Your task to perform on an android device: Open Chrome and go to settings Image 0: 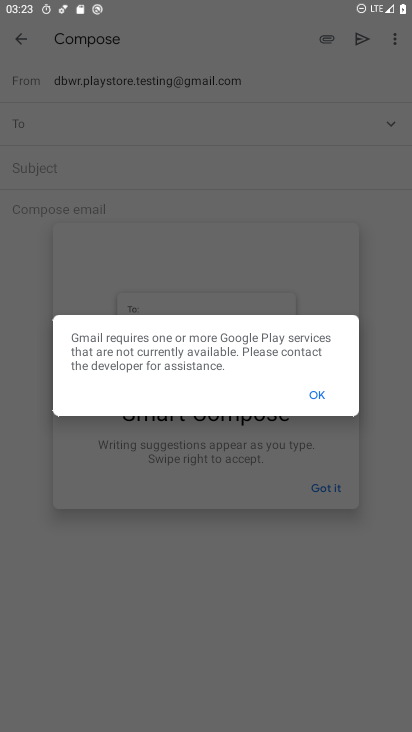
Step 0: press home button
Your task to perform on an android device: Open Chrome and go to settings Image 1: 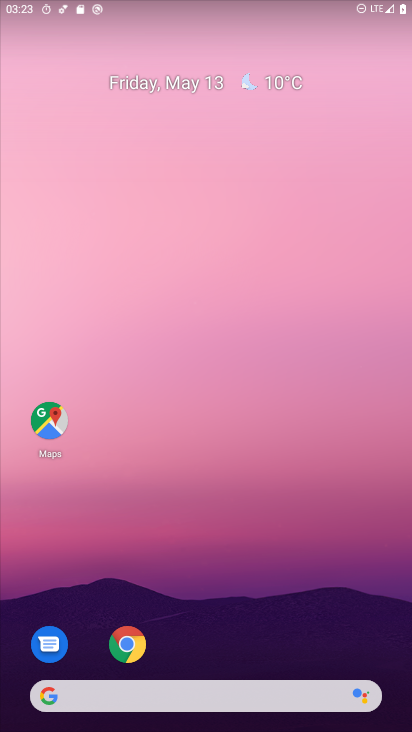
Step 1: drag from (250, 650) to (305, 46)
Your task to perform on an android device: Open Chrome and go to settings Image 2: 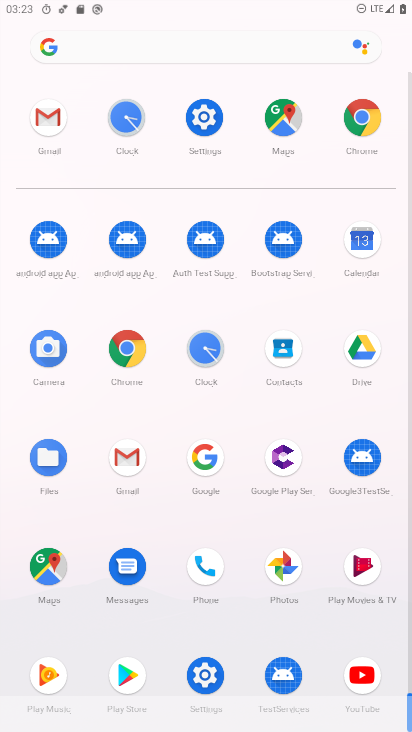
Step 2: click (141, 347)
Your task to perform on an android device: Open Chrome and go to settings Image 3: 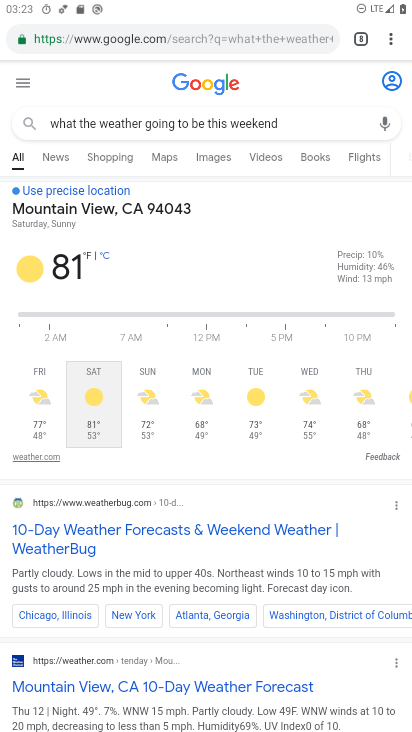
Step 3: drag from (391, 32) to (358, 264)
Your task to perform on an android device: Open Chrome and go to settings Image 4: 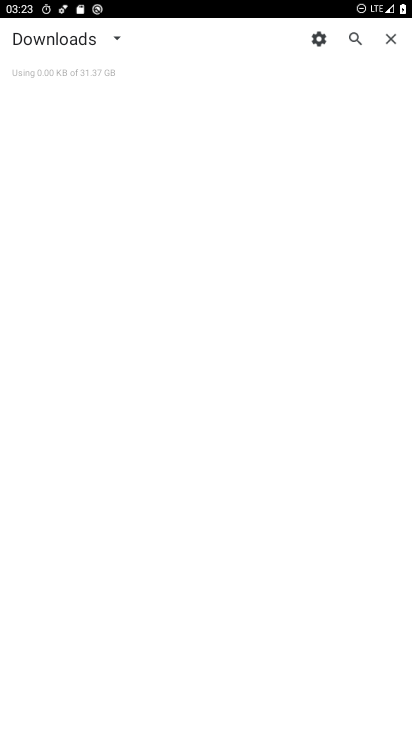
Step 4: press back button
Your task to perform on an android device: Open Chrome and go to settings Image 5: 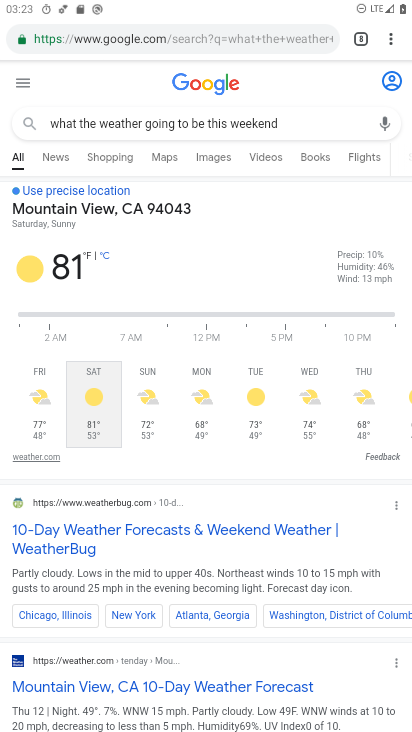
Step 5: click (394, 41)
Your task to perform on an android device: Open Chrome and go to settings Image 6: 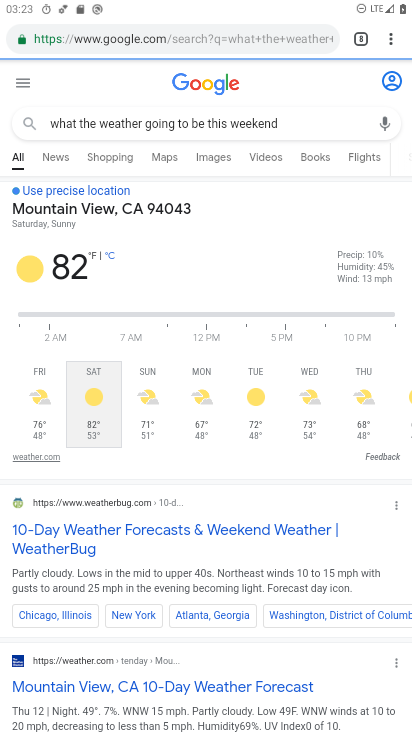
Step 6: task complete